Your task to perform on an android device: snooze an email in the gmail app Image 0: 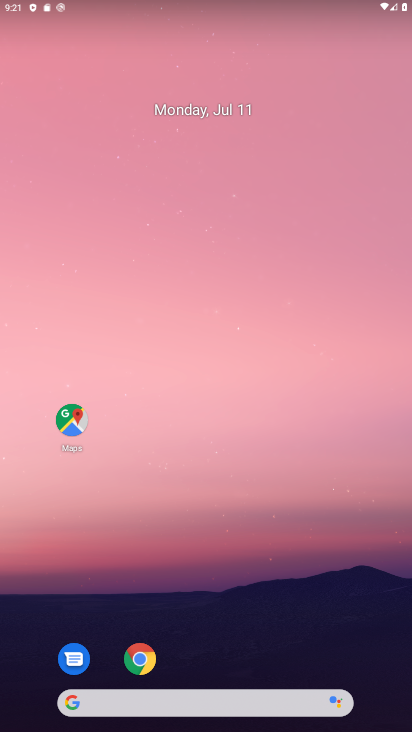
Step 0: drag from (362, 1) to (399, 10)
Your task to perform on an android device: snooze an email in the gmail app Image 1: 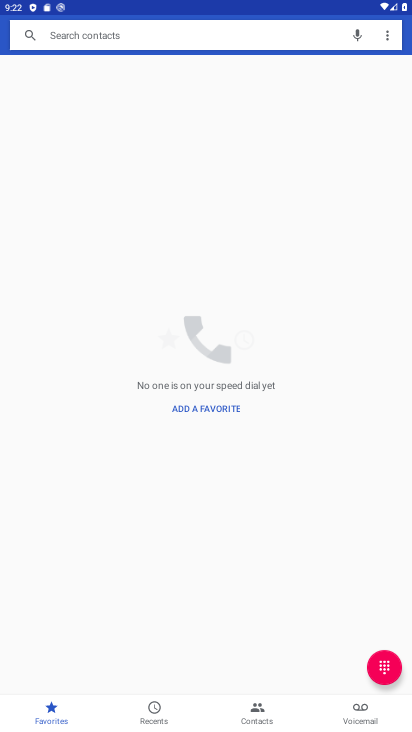
Step 1: press home button
Your task to perform on an android device: snooze an email in the gmail app Image 2: 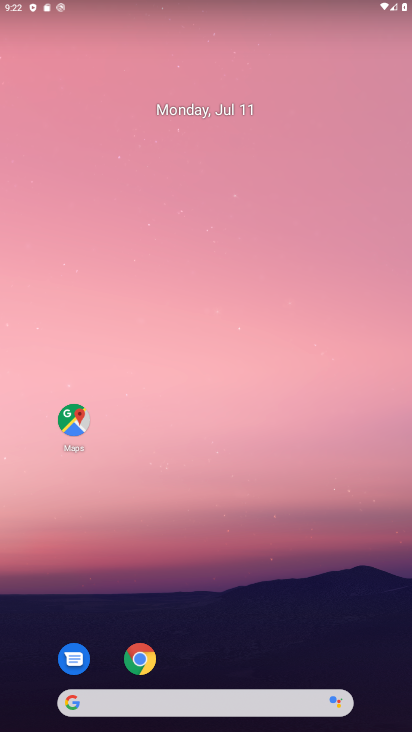
Step 2: drag from (336, 631) to (370, 17)
Your task to perform on an android device: snooze an email in the gmail app Image 3: 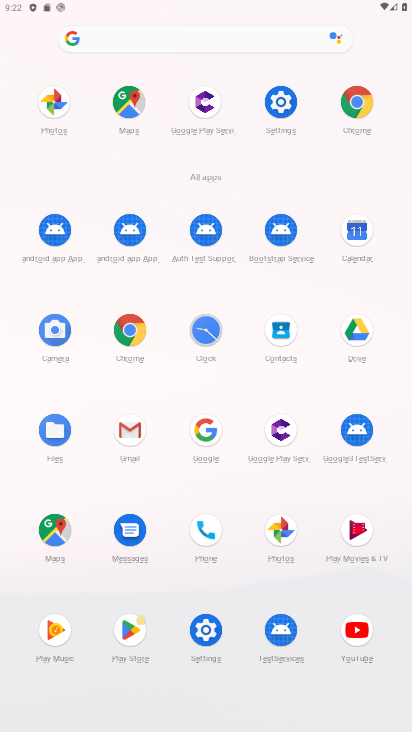
Step 3: click (120, 424)
Your task to perform on an android device: snooze an email in the gmail app Image 4: 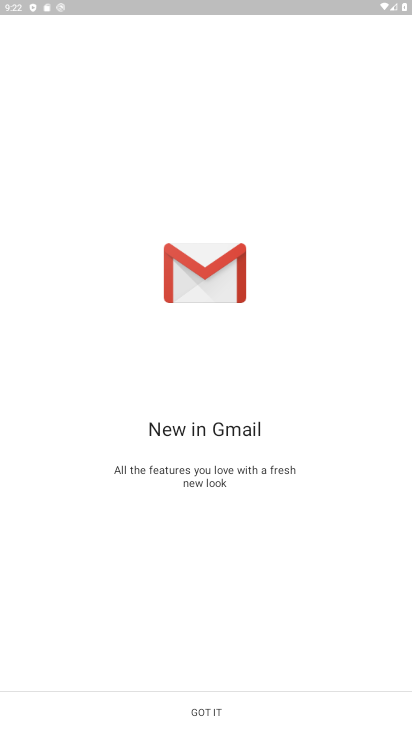
Step 4: click (215, 713)
Your task to perform on an android device: snooze an email in the gmail app Image 5: 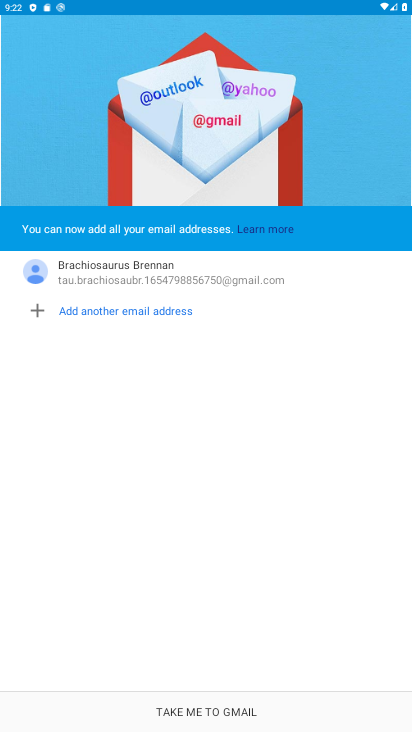
Step 5: click (203, 701)
Your task to perform on an android device: snooze an email in the gmail app Image 6: 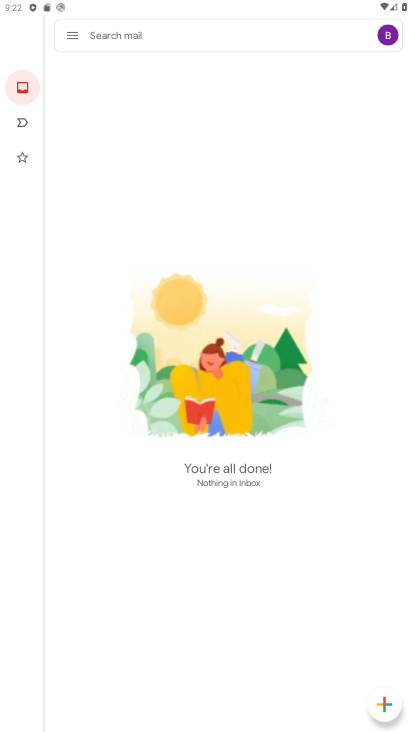
Step 6: task complete